Your task to perform on an android device: change the clock style Image 0: 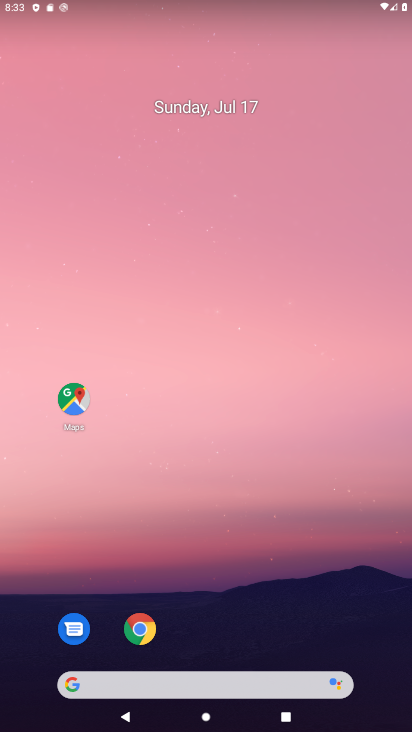
Step 0: drag from (309, 639) to (336, 220)
Your task to perform on an android device: change the clock style Image 1: 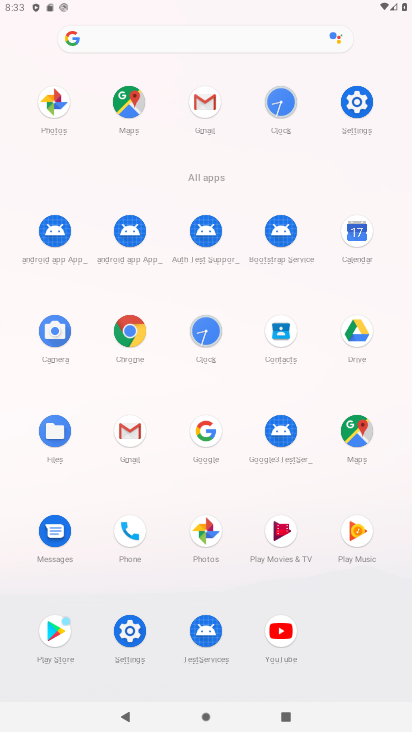
Step 1: click (279, 111)
Your task to perform on an android device: change the clock style Image 2: 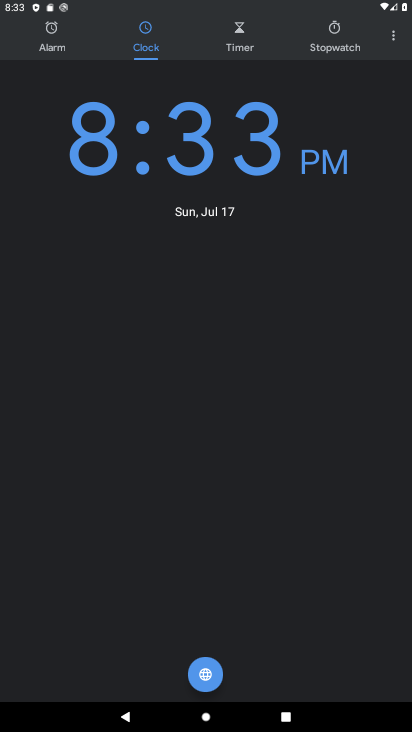
Step 2: click (400, 34)
Your task to perform on an android device: change the clock style Image 3: 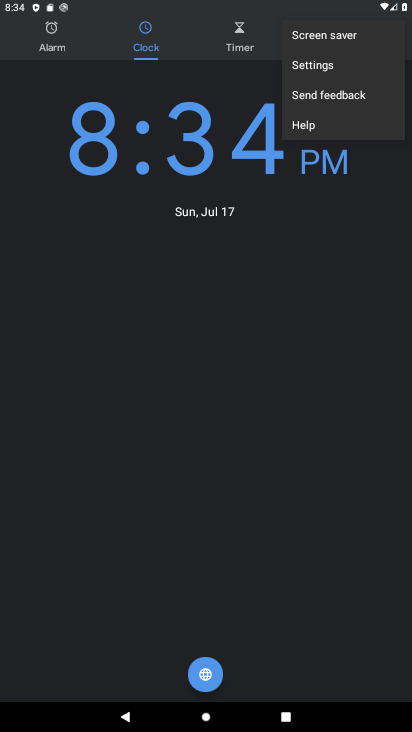
Step 3: click (342, 63)
Your task to perform on an android device: change the clock style Image 4: 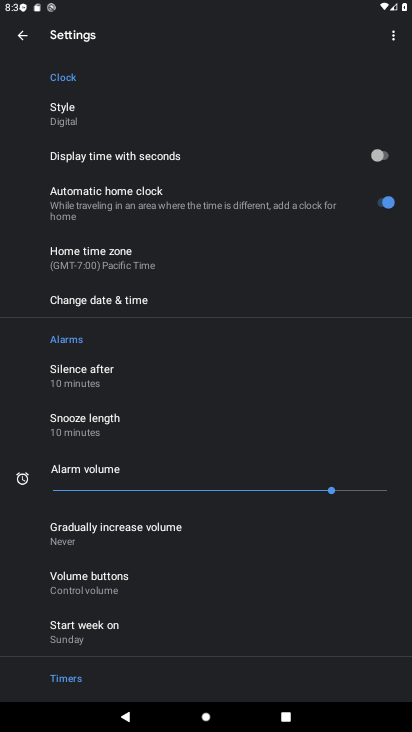
Step 4: click (75, 109)
Your task to perform on an android device: change the clock style Image 5: 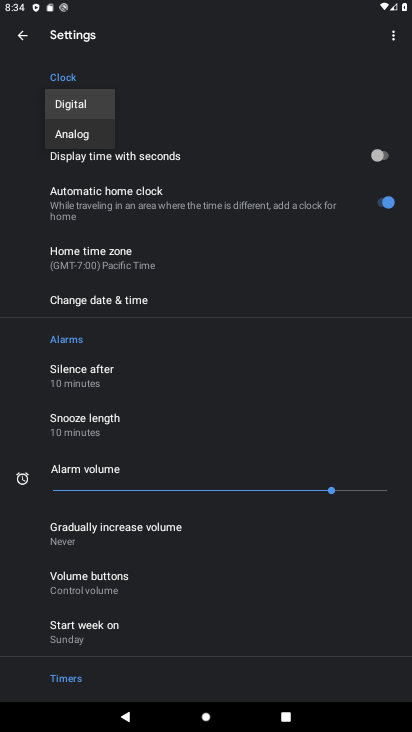
Step 5: click (96, 141)
Your task to perform on an android device: change the clock style Image 6: 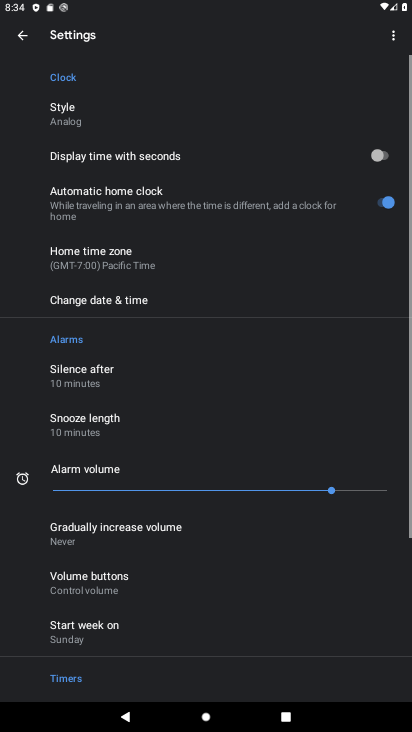
Step 6: task complete